Your task to perform on an android device: refresh tabs in the chrome app Image 0: 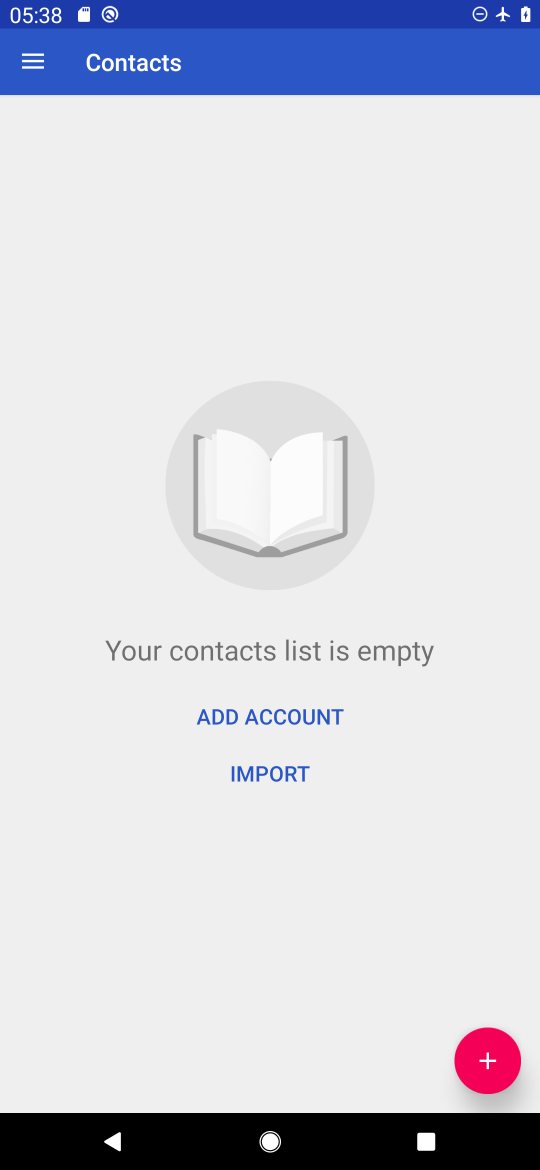
Step 0: drag from (231, 864) to (213, 386)
Your task to perform on an android device: refresh tabs in the chrome app Image 1: 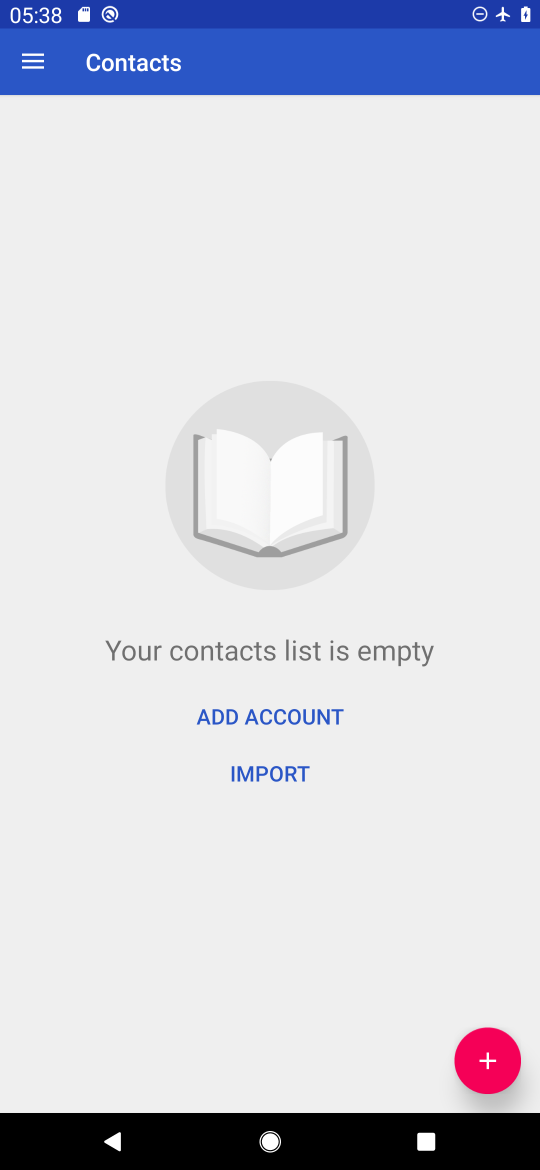
Step 1: press home button
Your task to perform on an android device: refresh tabs in the chrome app Image 2: 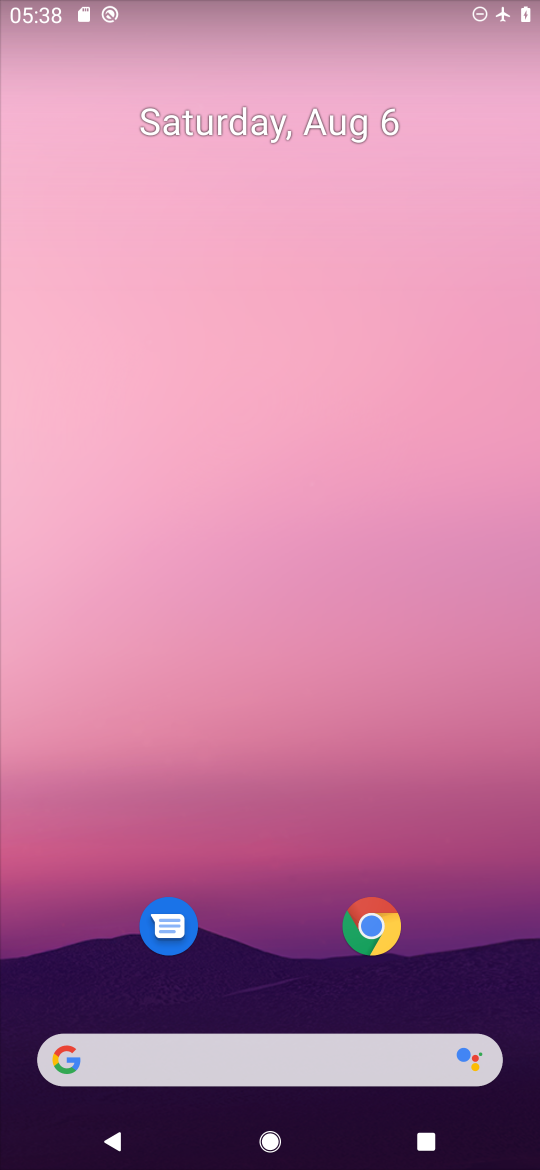
Step 2: click (342, 937)
Your task to perform on an android device: refresh tabs in the chrome app Image 3: 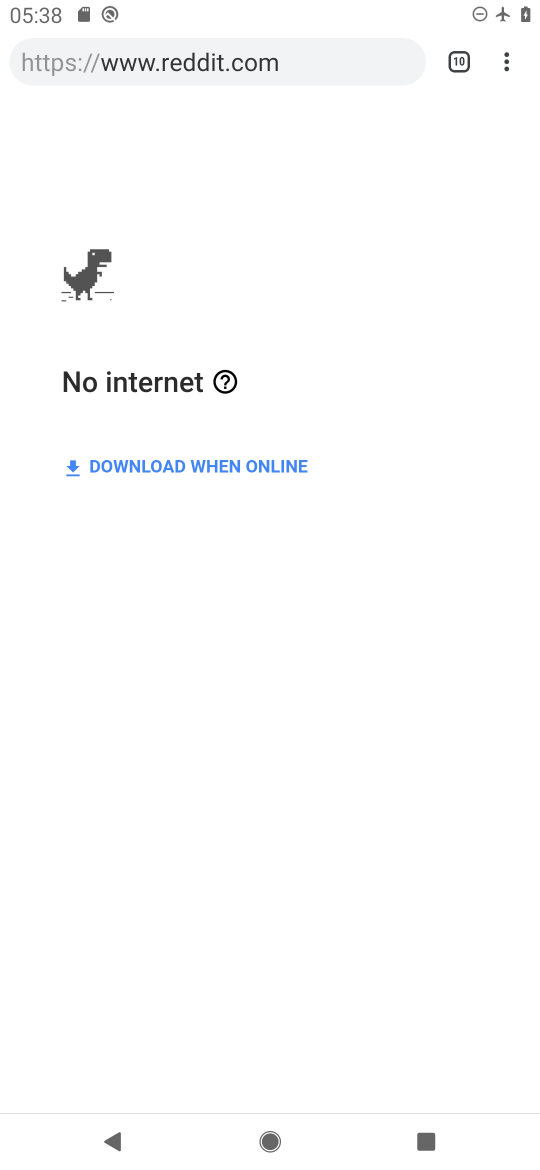
Step 3: click (496, 70)
Your task to perform on an android device: refresh tabs in the chrome app Image 4: 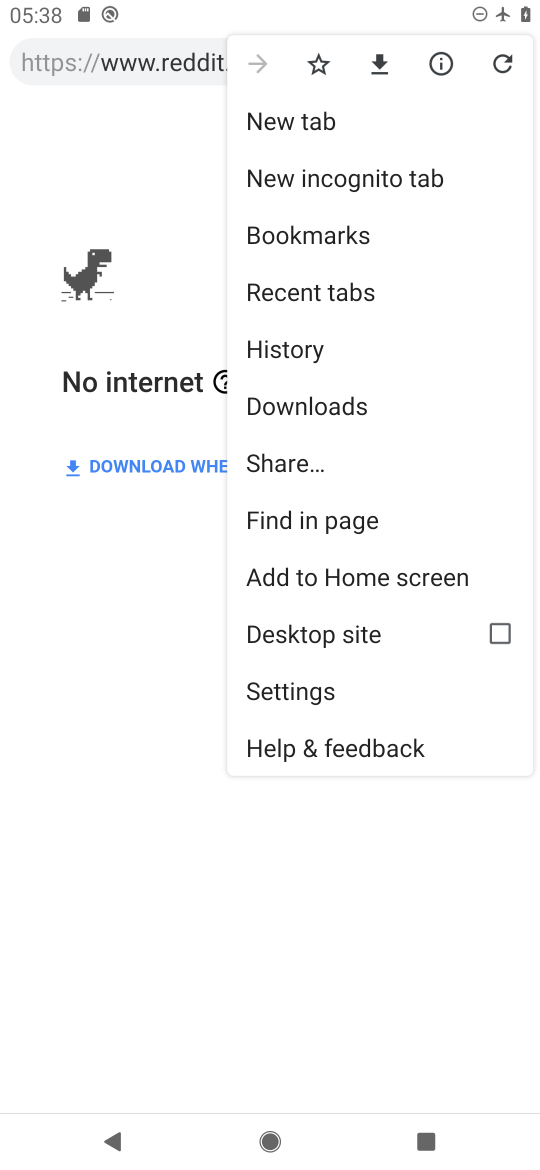
Step 4: click (496, 70)
Your task to perform on an android device: refresh tabs in the chrome app Image 5: 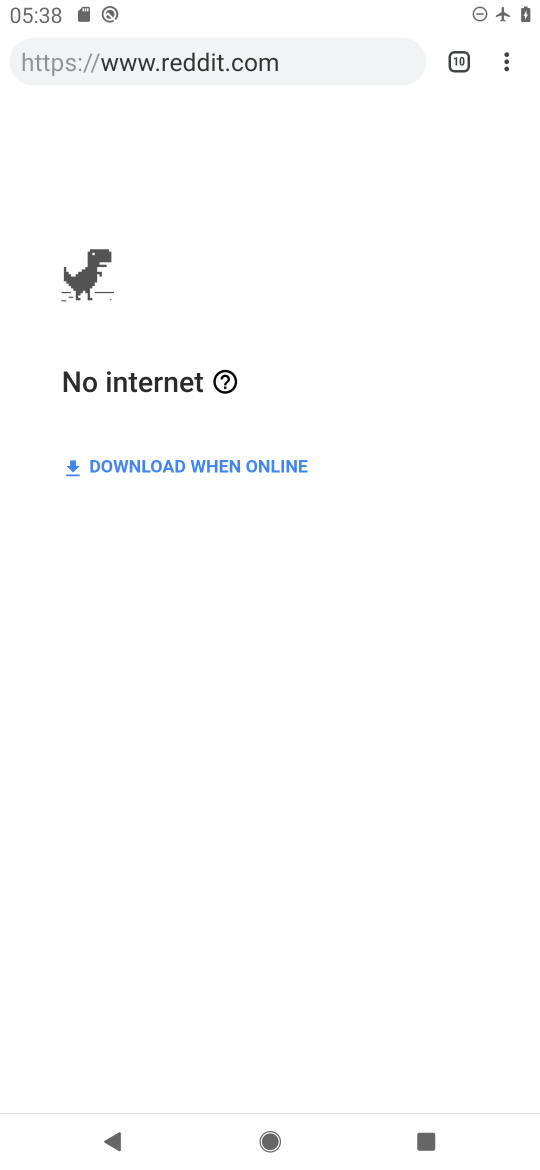
Step 5: task complete